Your task to perform on an android device: Open Chrome and go to settings Image 0: 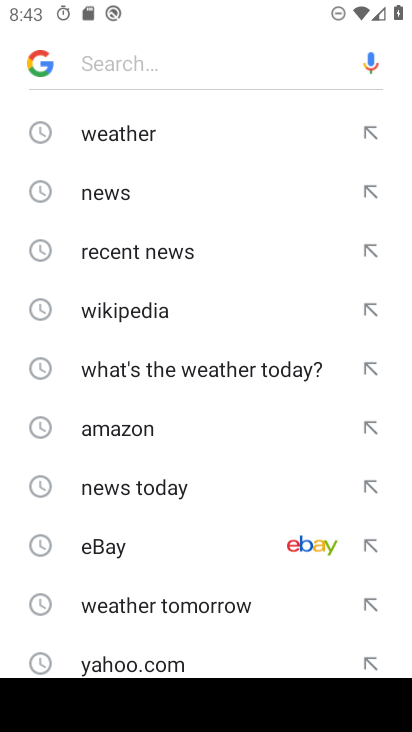
Step 0: press home button
Your task to perform on an android device: Open Chrome and go to settings Image 1: 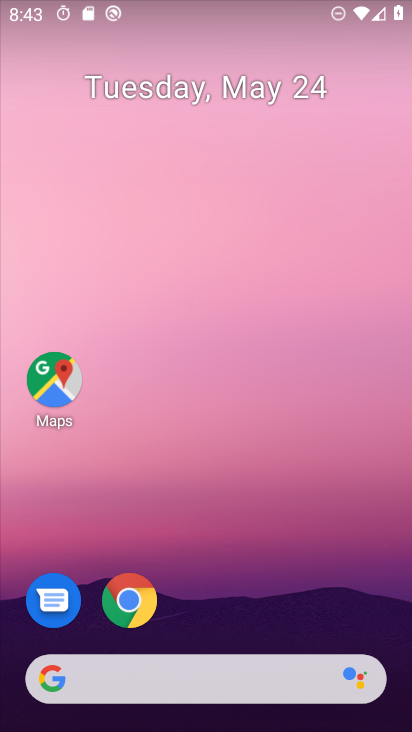
Step 1: drag from (198, 607) to (365, 1)
Your task to perform on an android device: Open Chrome and go to settings Image 2: 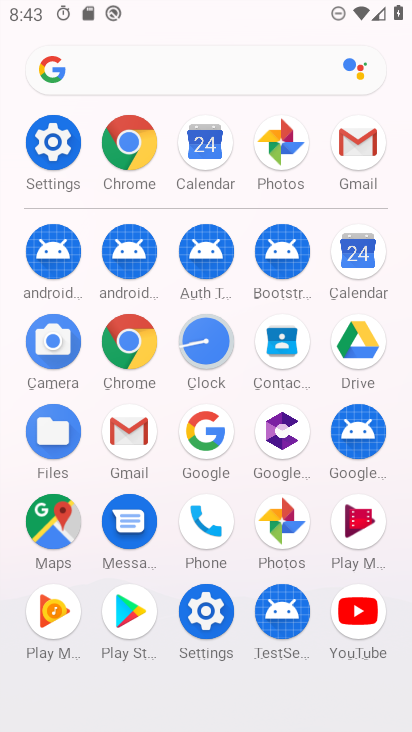
Step 2: click (51, 136)
Your task to perform on an android device: Open Chrome and go to settings Image 3: 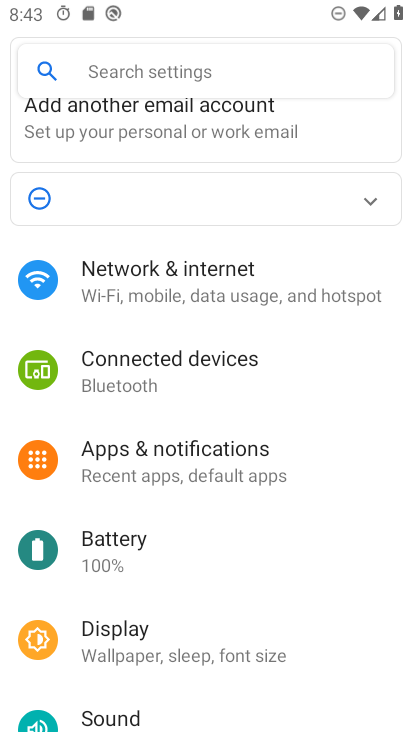
Step 3: press home button
Your task to perform on an android device: Open Chrome and go to settings Image 4: 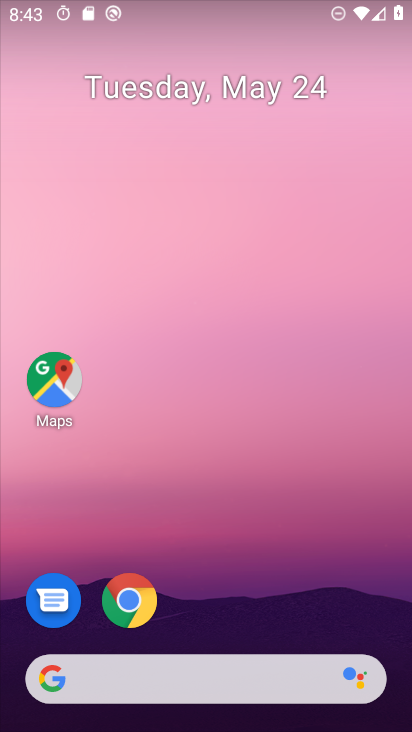
Step 4: click (132, 602)
Your task to perform on an android device: Open Chrome and go to settings Image 5: 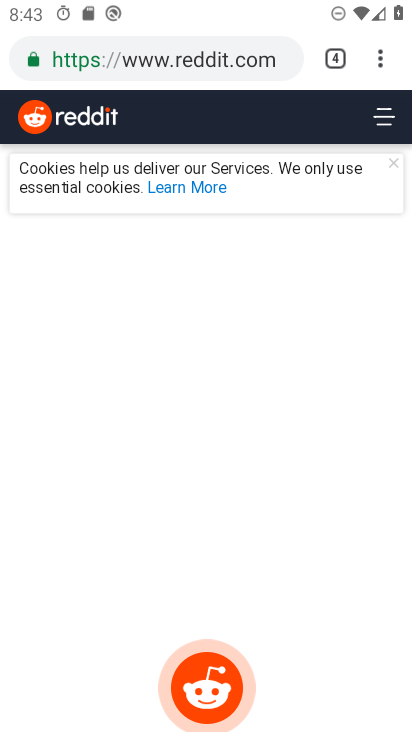
Step 5: task complete